Your task to perform on an android device: What's on my calendar tomorrow? Image 0: 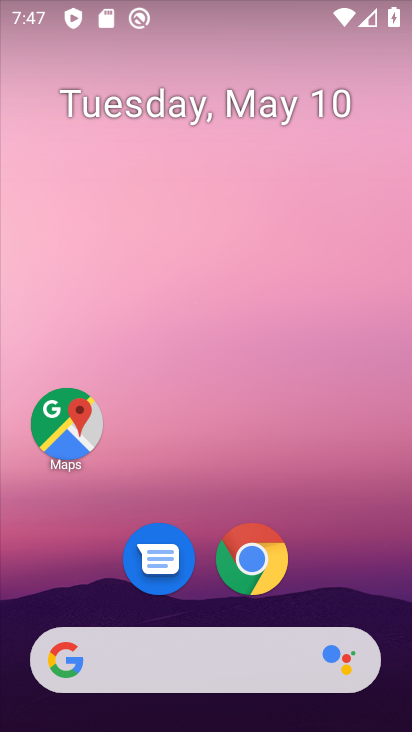
Step 0: drag from (308, 479) to (320, 10)
Your task to perform on an android device: What's on my calendar tomorrow? Image 1: 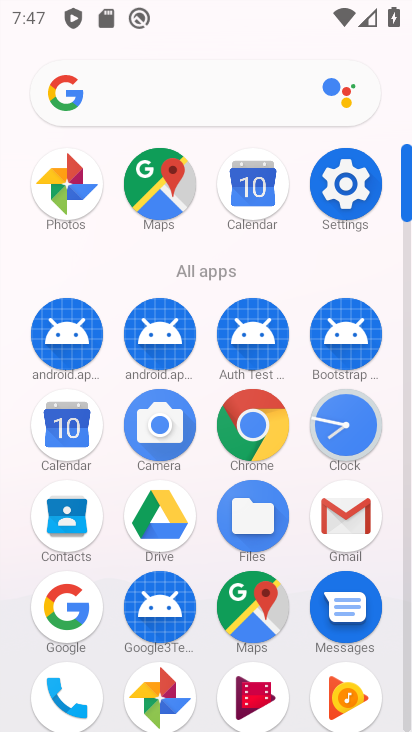
Step 1: click (252, 191)
Your task to perform on an android device: What's on my calendar tomorrow? Image 2: 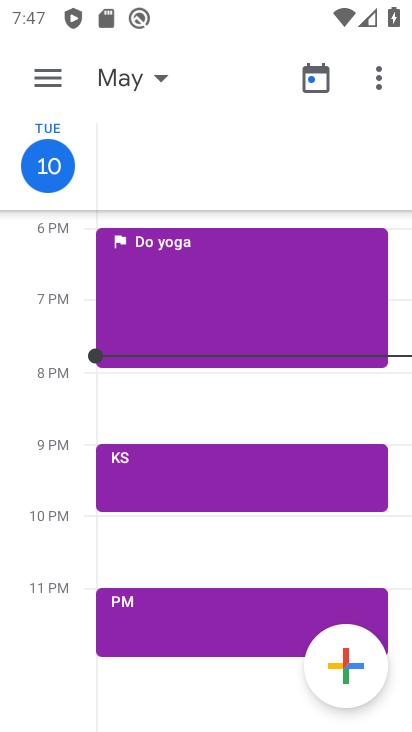
Step 2: click (47, 75)
Your task to perform on an android device: What's on my calendar tomorrow? Image 3: 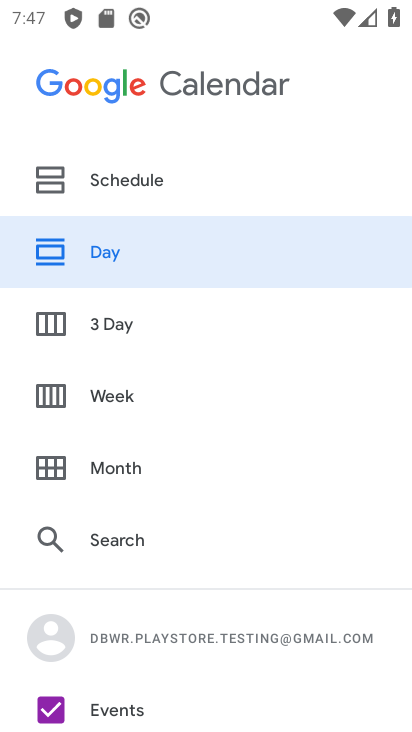
Step 3: click (280, 253)
Your task to perform on an android device: What's on my calendar tomorrow? Image 4: 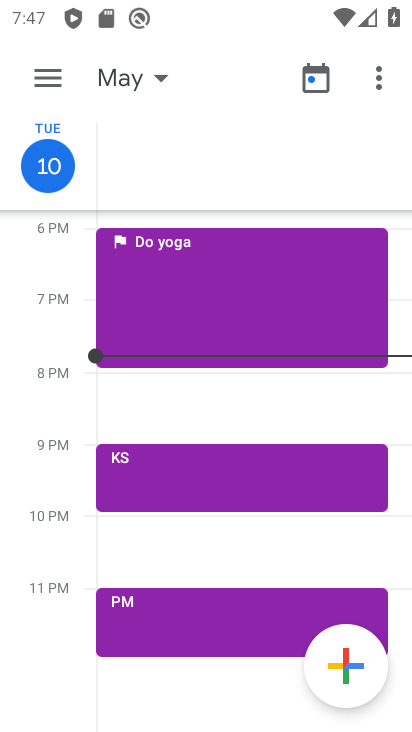
Step 4: click (156, 80)
Your task to perform on an android device: What's on my calendar tomorrow? Image 5: 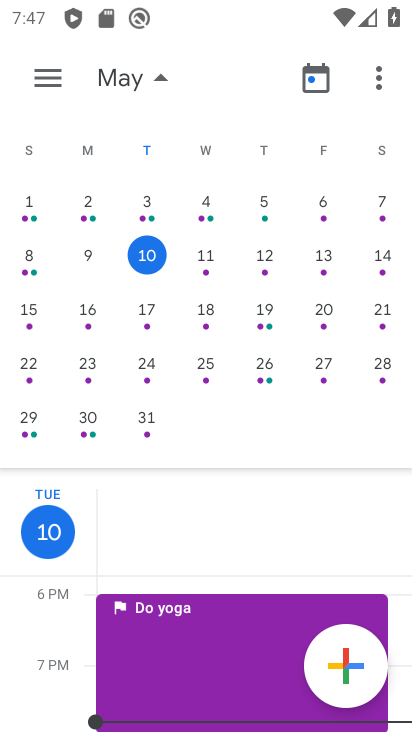
Step 5: click (201, 259)
Your task to perform on an android device: What's on my calendar tomorrow? Image 6: 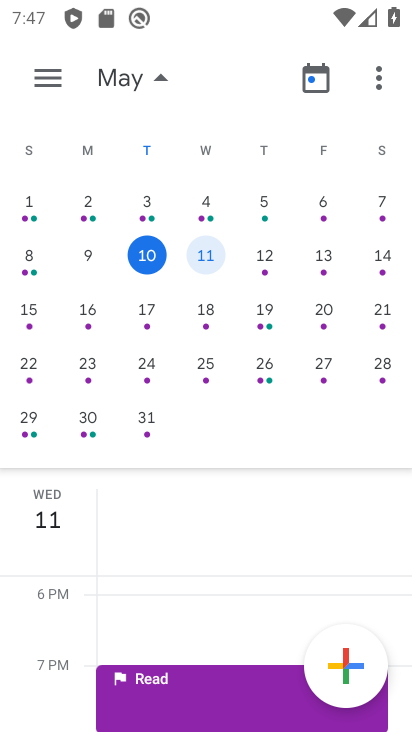
Step 6: task complete